Your task to perform on an android device: Go to Google maps Image 0: 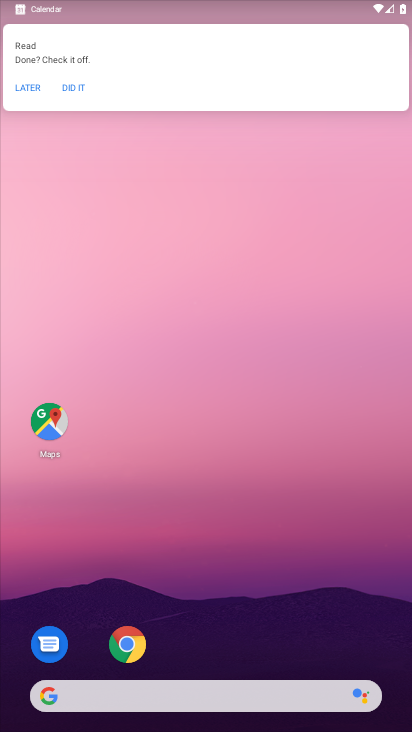
Step 0: click (46, 416)
Your task to perform on an android device: Go to Google maps Image 1: 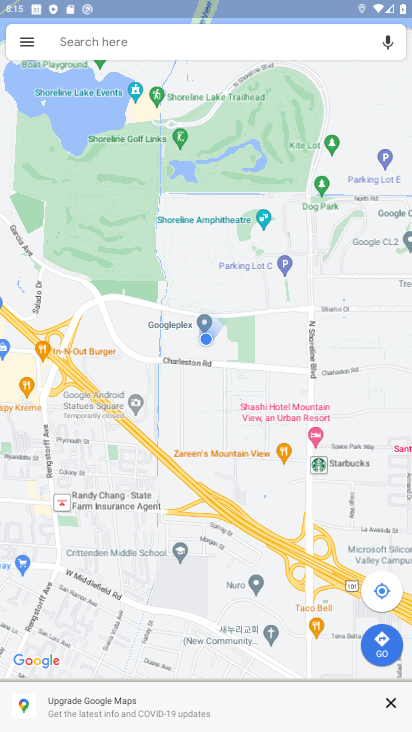
Step 1: task complete